Your task to perform on an android device: change text size in settings app Image 0: 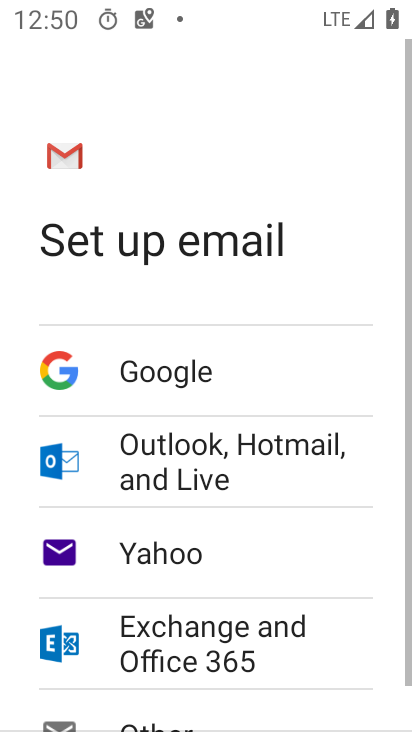
Step 0: press home button
Your task to perform on an android device: change text size in settings app Image 1: 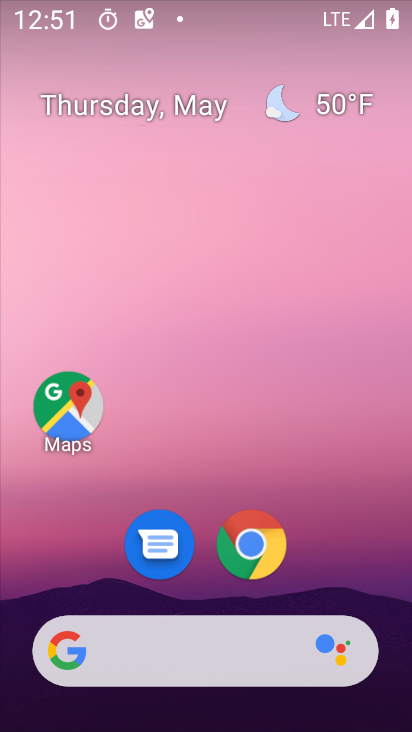
Step 1: drag from (234, 576) to (185, 246)
Your task to perform on an android device: change text size in settings app Image 2: 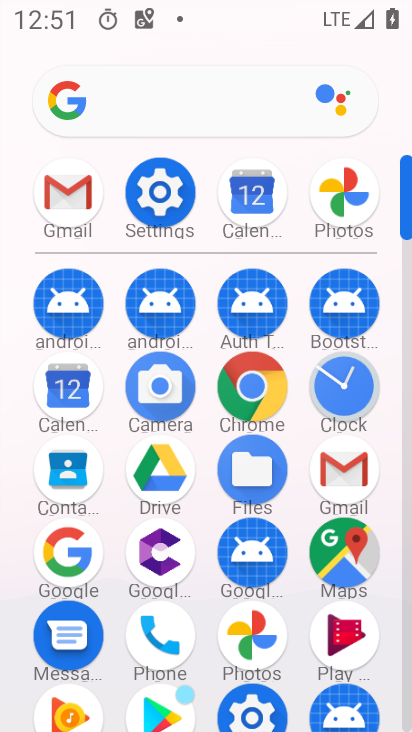
Step 2: click (153, 199)
Your task to perform on an android device: change text size in settings app Image 3: 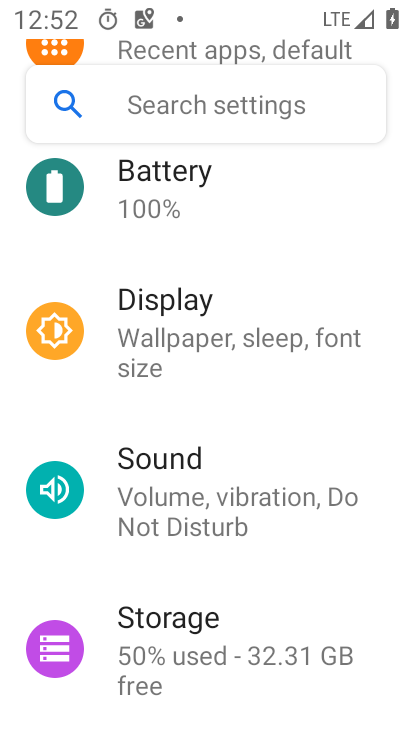
Step 3: click (145, 325)
Your task to perform on an android device: change text size in settings app Image 4: 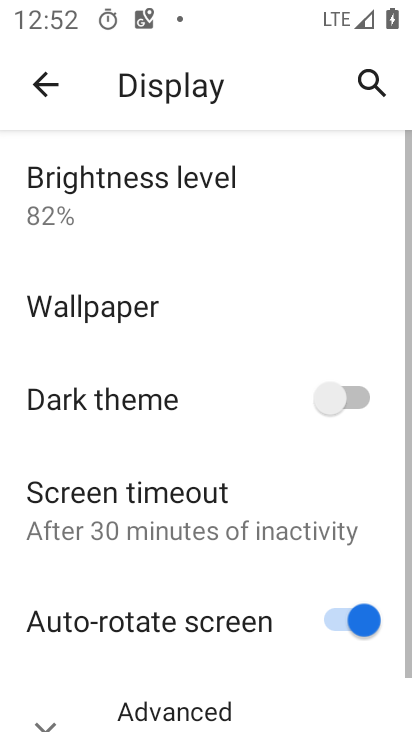
Step 4: drag from (204, 574) to (164, 37)
Your task to perform on an android device: change text size in settings app Image 5: 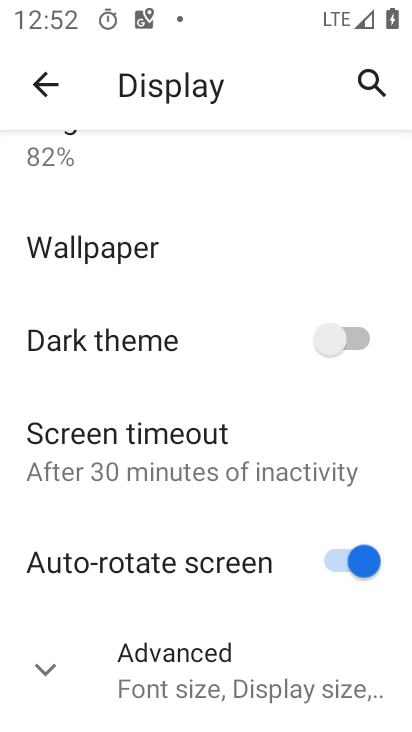
Step 5: click (166, 685)
Your task to perform on an android device: change text size in settings app Image 6: 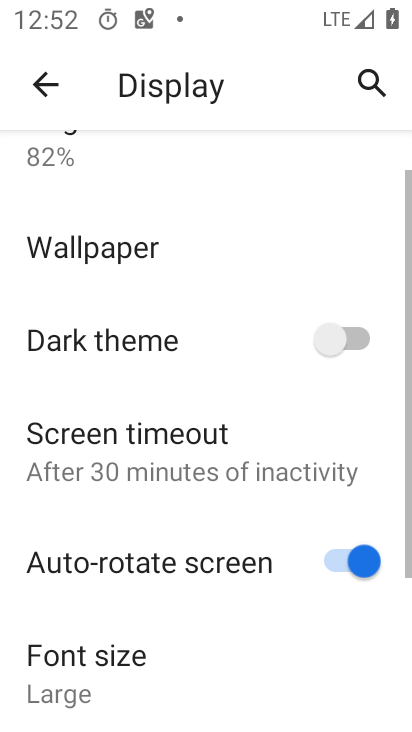
Step 6: drag from (166, 685) to (137, 266)
Your task to perform on an android device: change text size in settings app Image 7: 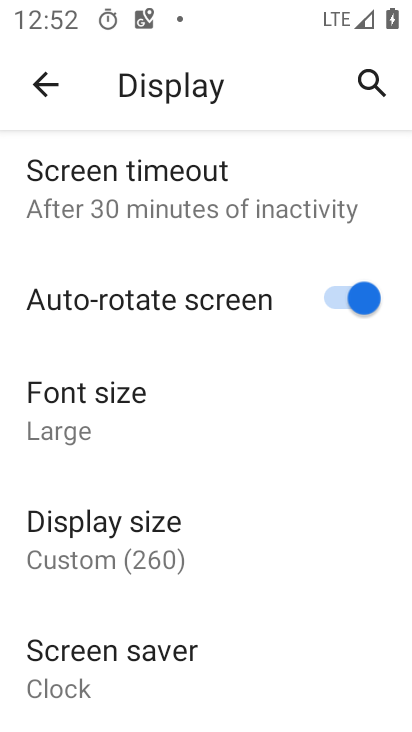
Step 7: click (99, 432)
Your task to perform on an android device: change text size in settings app Image 8: 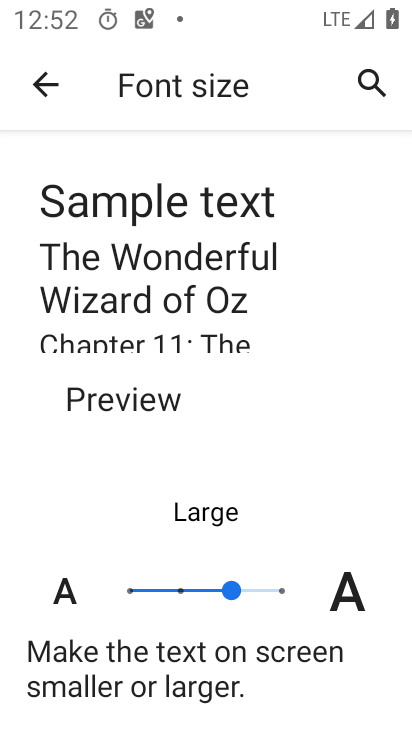
Step 8: click (123, 578)
Your task to perform on an android device: change text size in settings app Image 9: 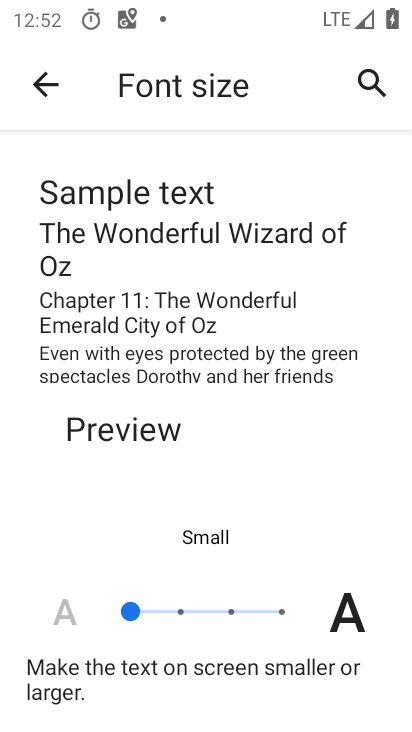
Step 9: task complete